Your task to perform on an android device: Go to battery settings Image 0: 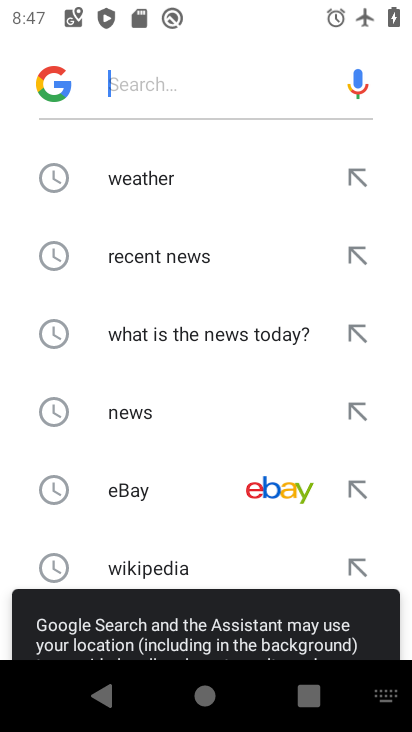
Step 0: press home button
Your task to perform on an android device: Go to battery settings Image 1: 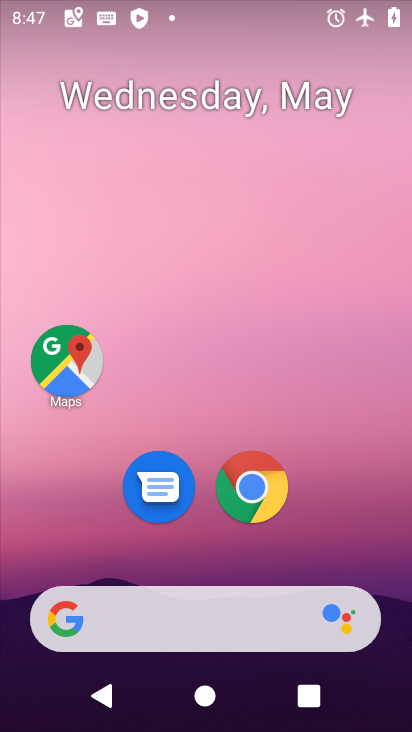
Step 1: drag from (204, 554) to (203, 123)
Your task to perform on an android device: Go to battery settings Image 2: 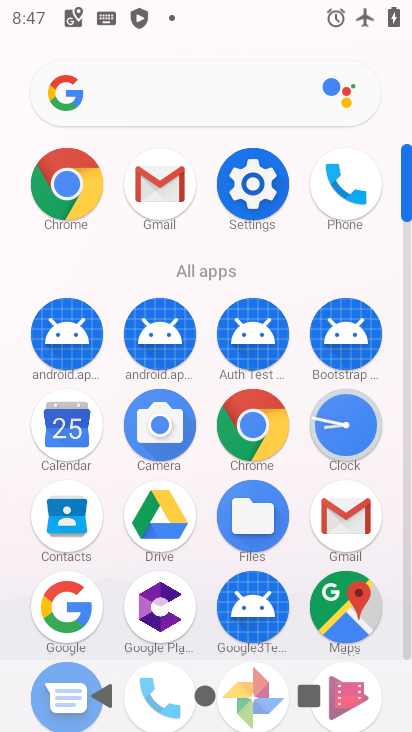
Step 2: click (250, 173)
Your task to perform on an android device: Go to battery settings Image 3: 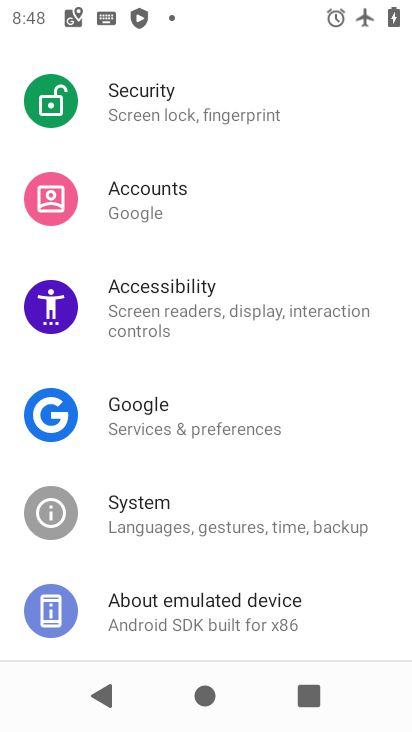
Step 3: drag from (217, 144) to (200, 662)
Your task to perform on an android device: Go to battery settings Image 4: 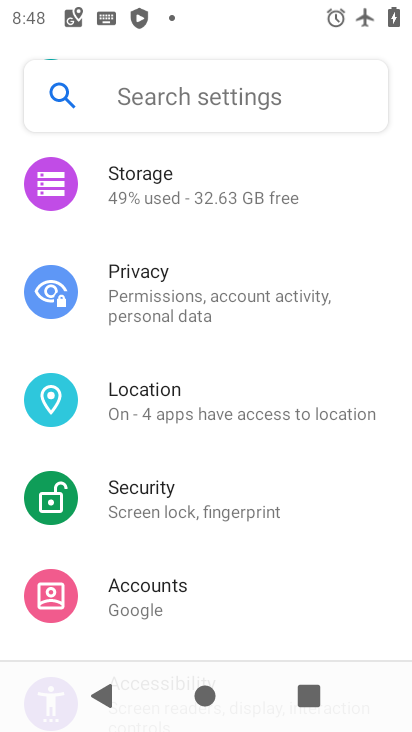
Step 4: drag from (181, 158) to (226, 726)
Your task to perform on an android device: Go to battery settings Image 5: 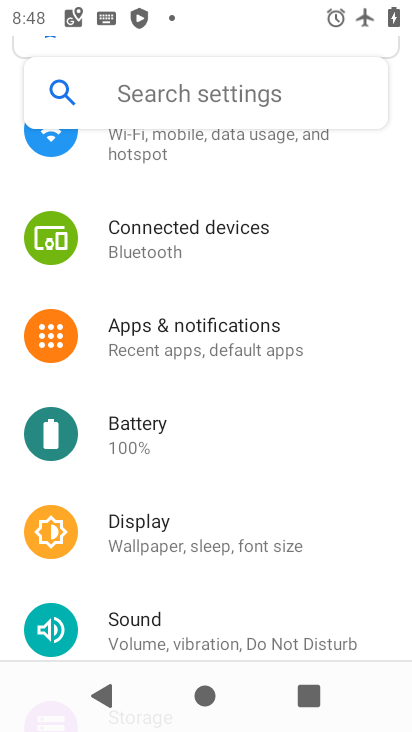
Step 5: click (176, 435)
Your task to perform on an android device: Go to battery settings Image 6: 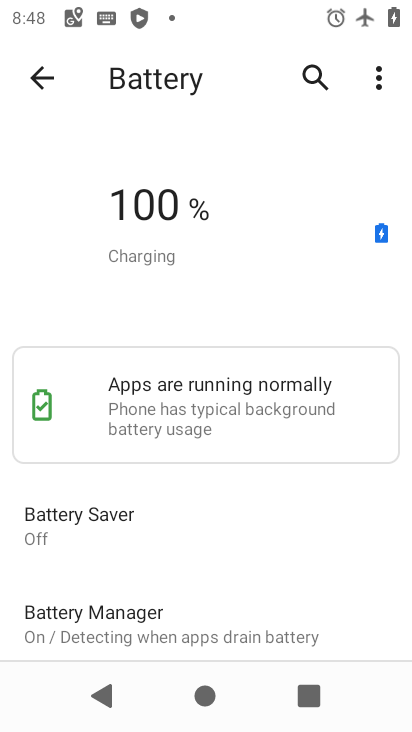
Step 6: task complete